Your task to perform on an android device: open app "Google News" (install if not already installed) Image 0: 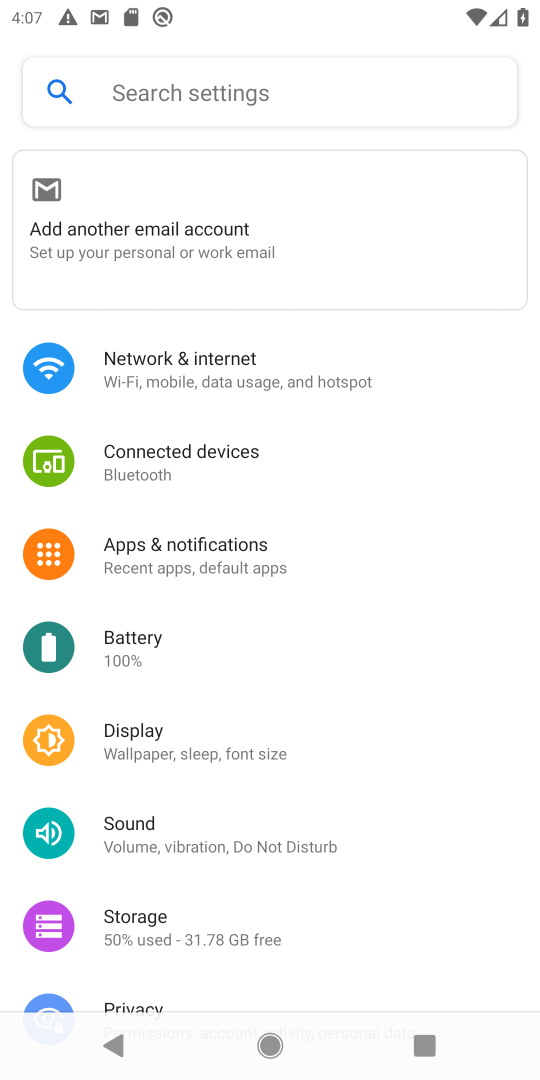
Step 0: press home button
Your task to perform on an android device: open app "Google News" (install if not already installed) Image 1: 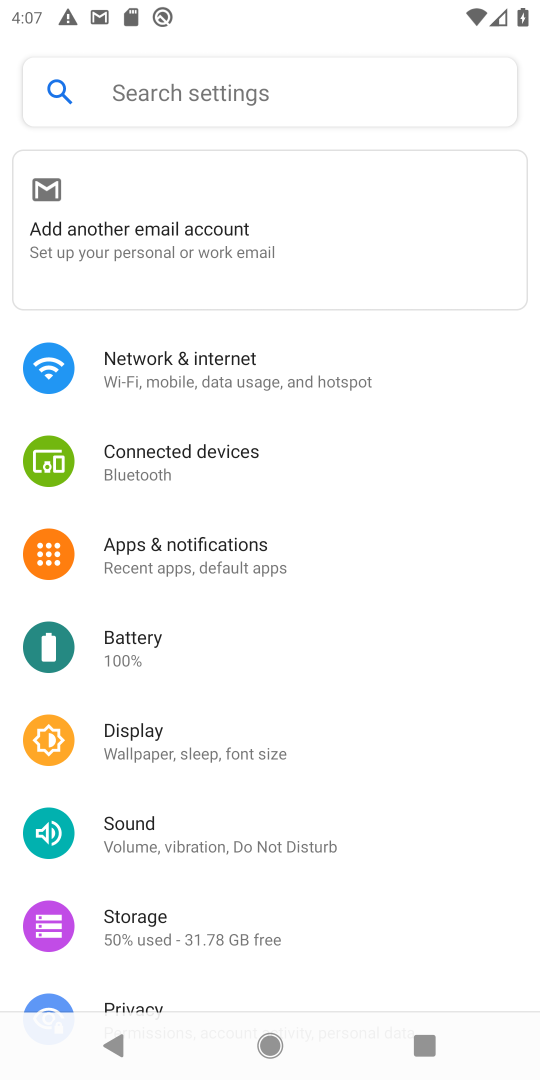
Step 1: press home button
Your task to perform on an android device: open app "Google News" (install if not already installed) Image 2: 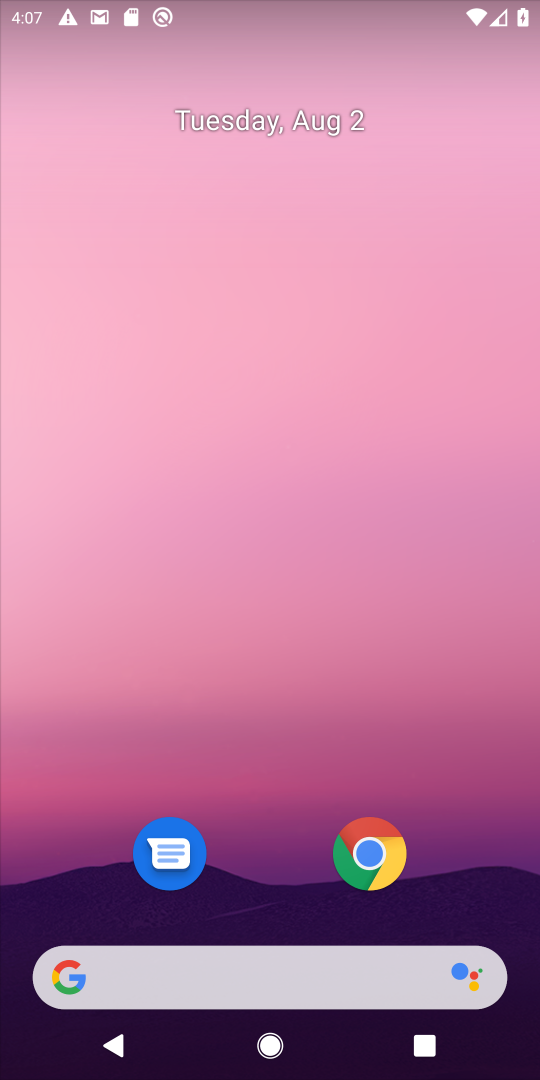
Step 2: click (302, 1066)
Your task to perform on an android device: open app "Google News" (install if not already installed) Image 3: 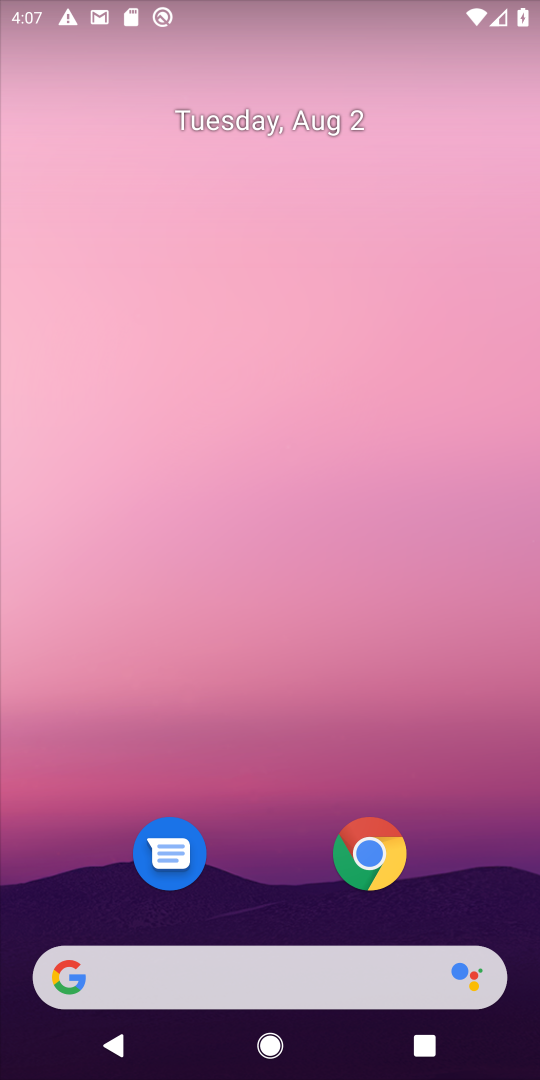
Step 3: drag from (306, 371) to (306, 281)
Your task to perform on an android device: open app "Google News" (install if not already installed) Image 4: 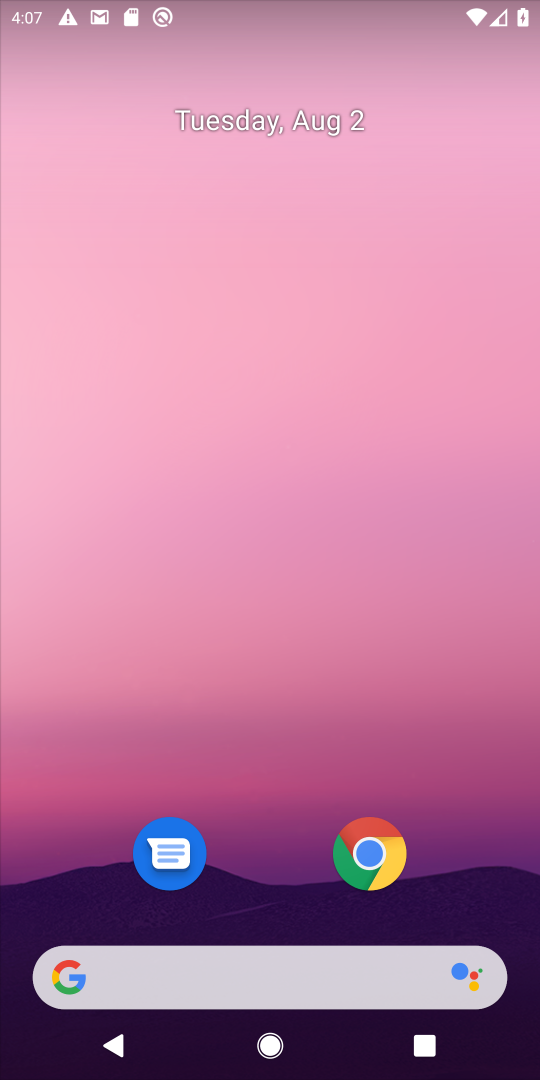
Step 4: drag from (343, 1072) to (313, 13)
Your task to perform on an android device: open app "Google News" (install if not already installed) Image 5: 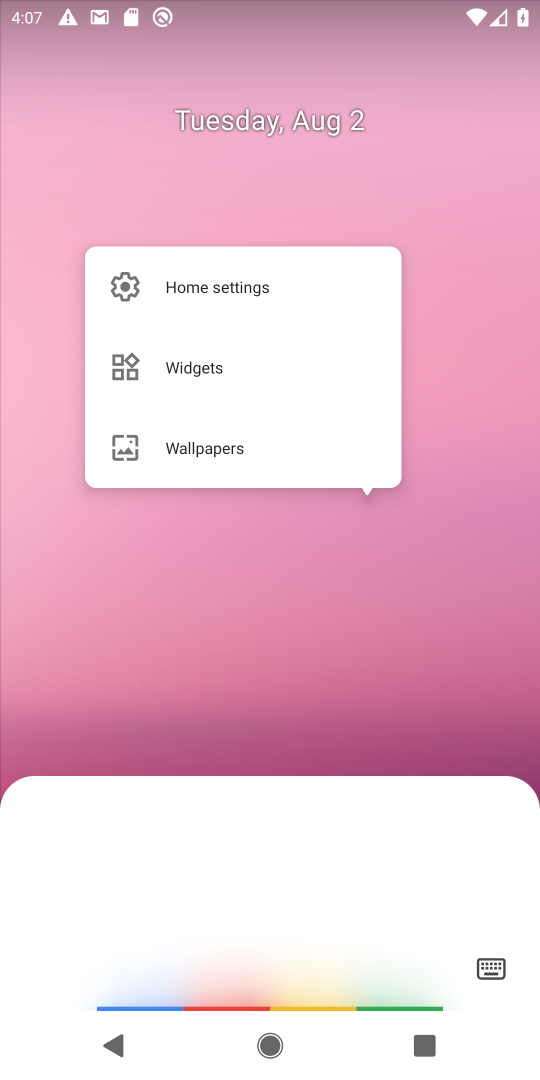
Step 5: click (276, 743)
Your task to perform on an android device: open app "Google News" (install if not already installed) Image 6: 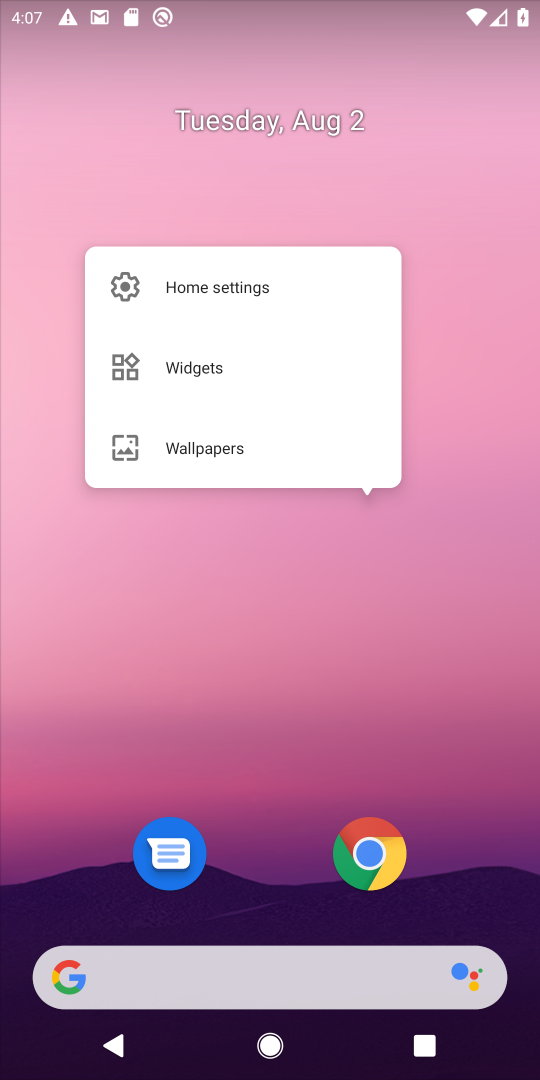
Step 6: click (430, 630)
Your task to perform on an android device: open app "Google News" (install if not already installed) Image 7: 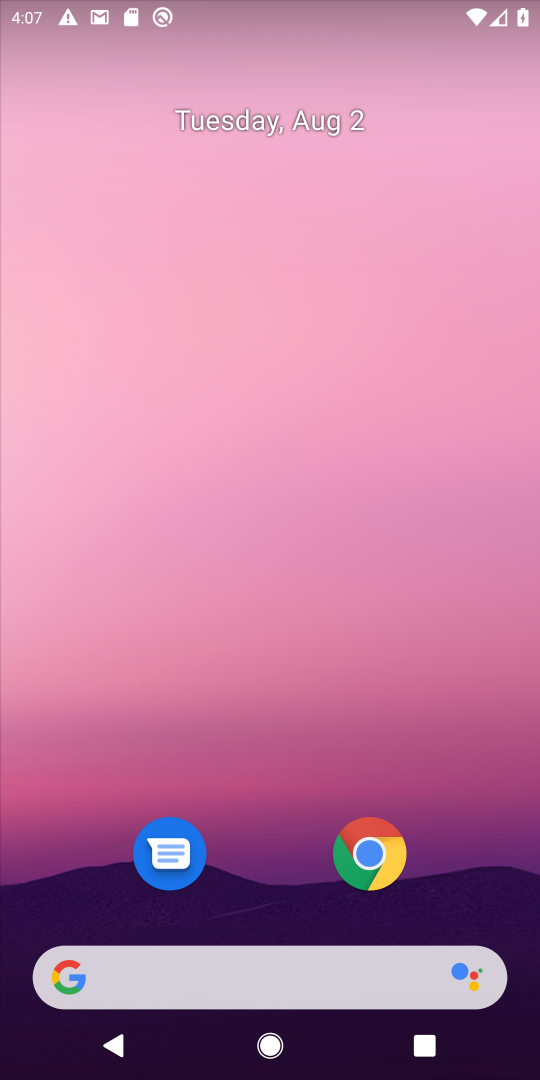
Step 7: drag from (332, 1071) to (298, 165)
Your task to perform on an android device: open app "Google News" (install if not already installed) Image 8: 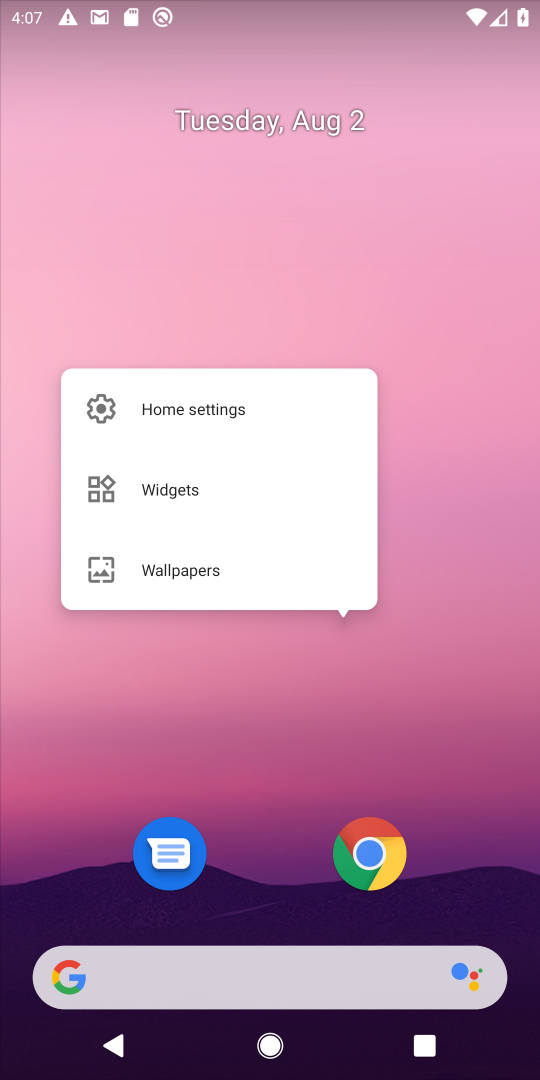
Step 8: click (278, 822)
Your task to perform on an android device: open app "Google News" (install if not already installed) Image 9: 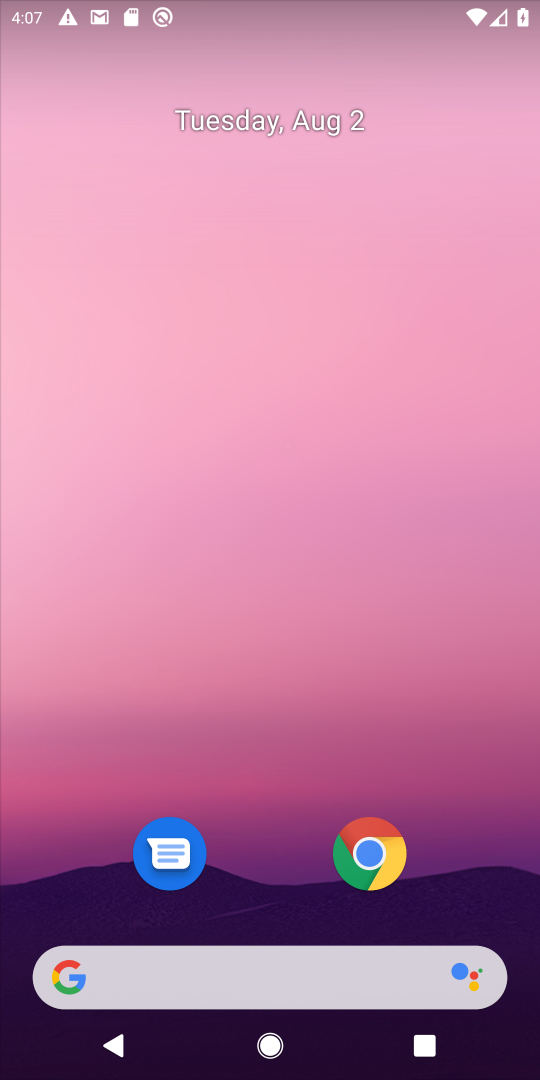
Step 9: drag from (320, 1059) to (333, 313)
Your task to perform on an android device: open app "Google News" (install if not already installed) Image 10: 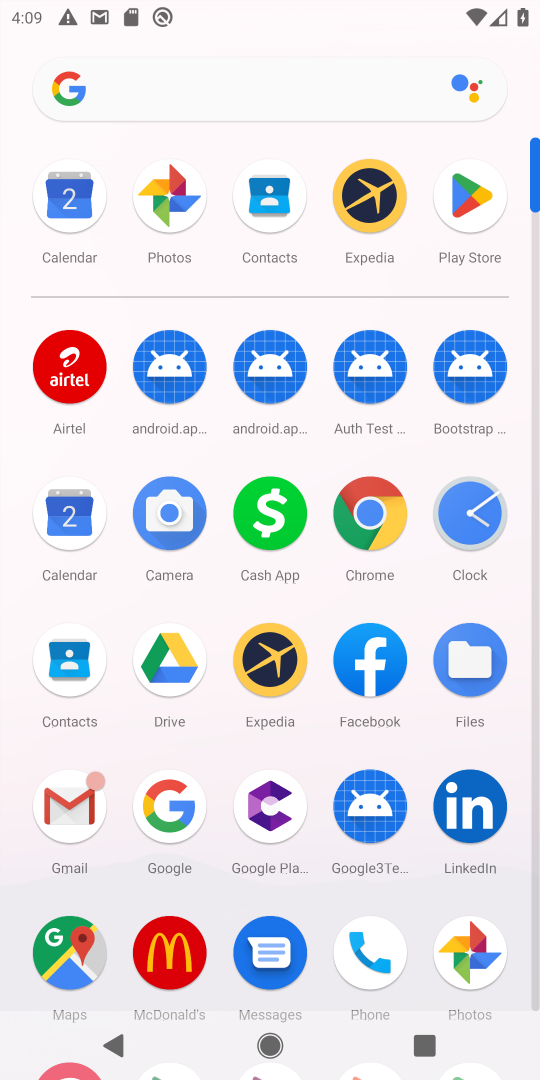
Step 10: click (473, 205)
Your task to perform on an android device: open app "Google News" (install if not already installed) Image 11: 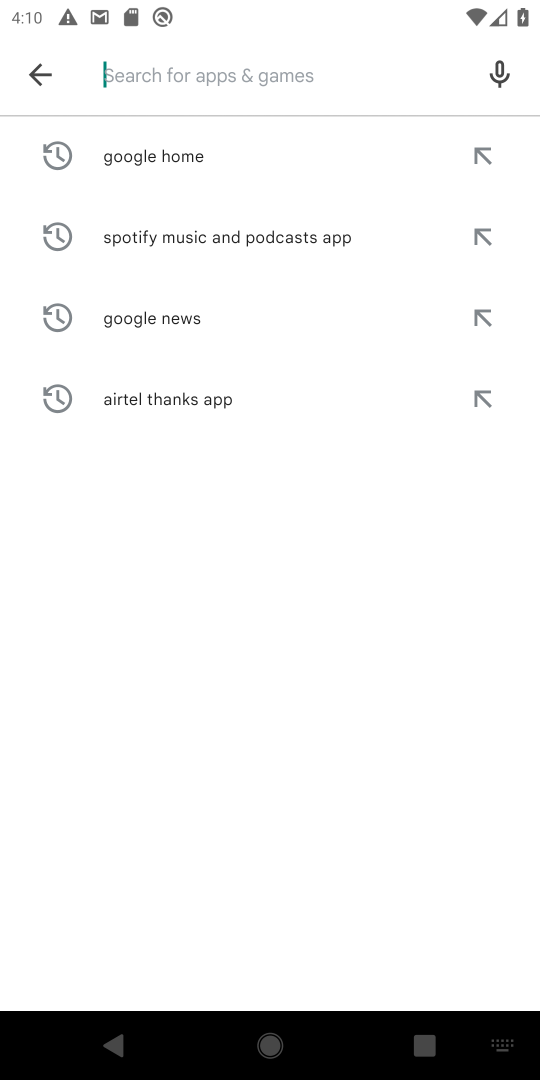
Step 11: click (289, 759)
Your task to perform on an android device: open app "Google News" (install if not already installed) Image 12: 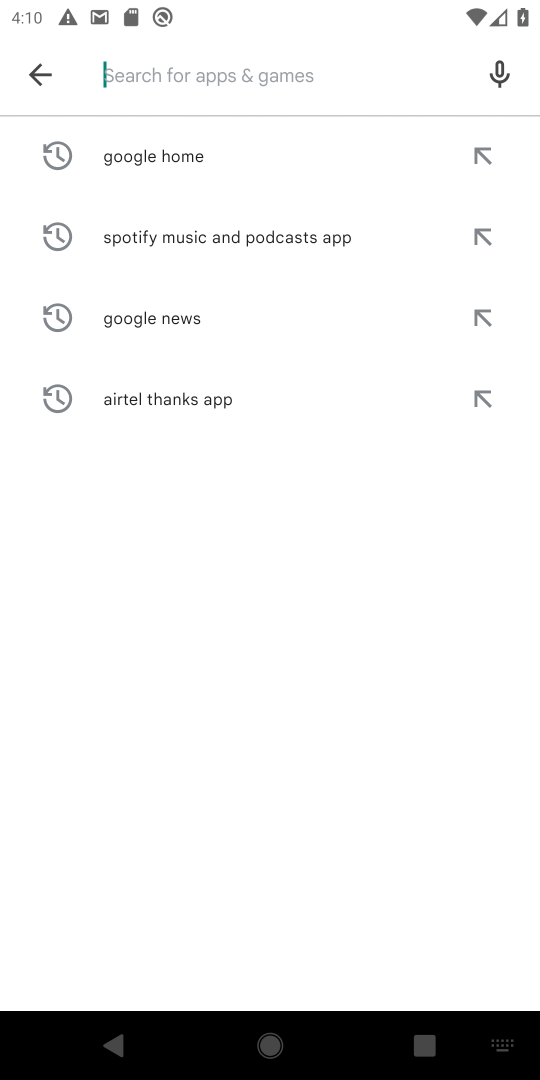
Step 12: type "Google News"
Your task to perform on an android device: open app "Google News" (install if not already installed) Image 13: 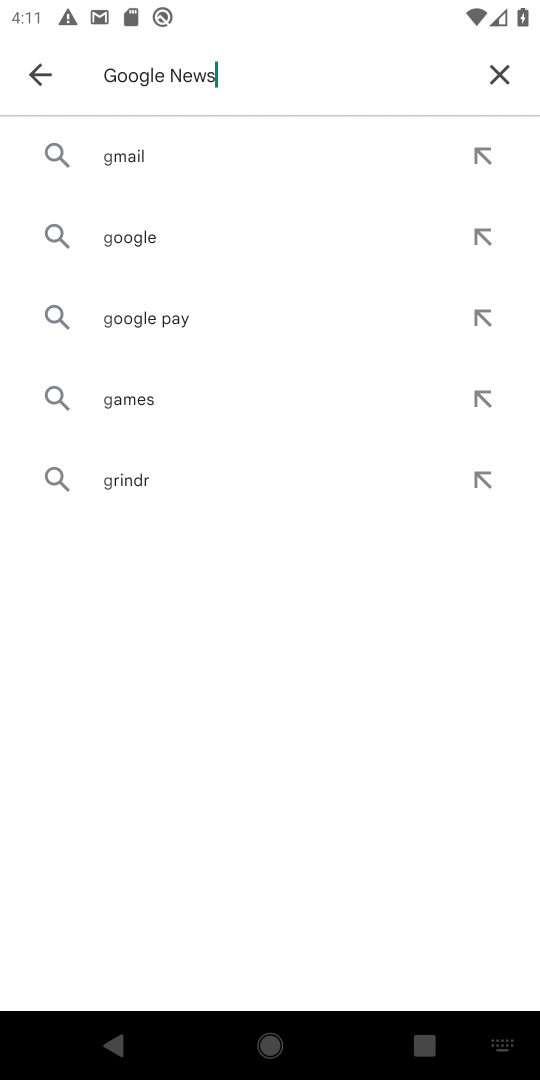
Step 13: type ""
Your task to perform on an android device: open app "Google News" (install if not already installed) Image 14: 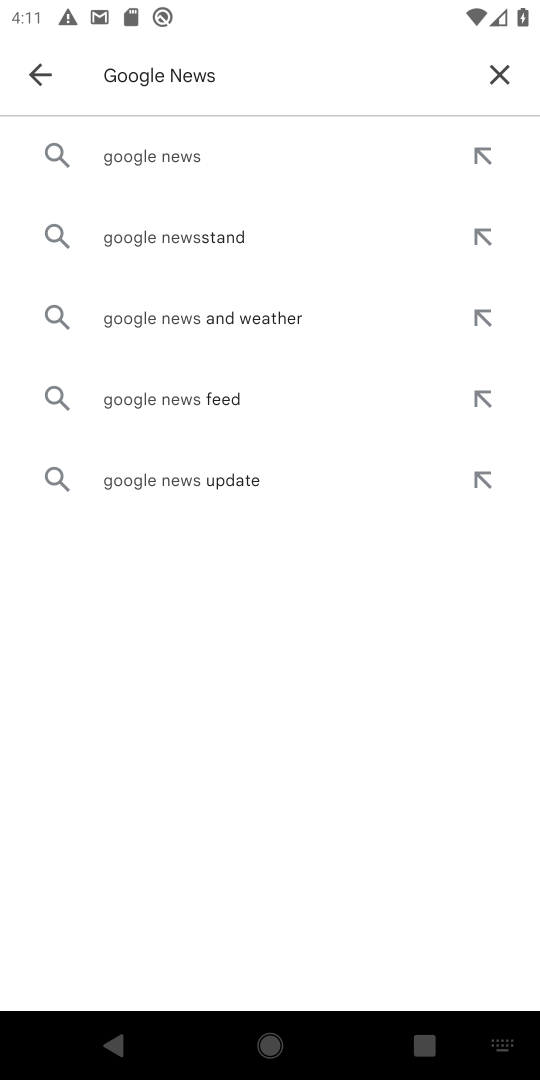
Step 14: click (153, 156)
Your task to perform on an android device: open app "Google News" (install if not already installed) Image 15: 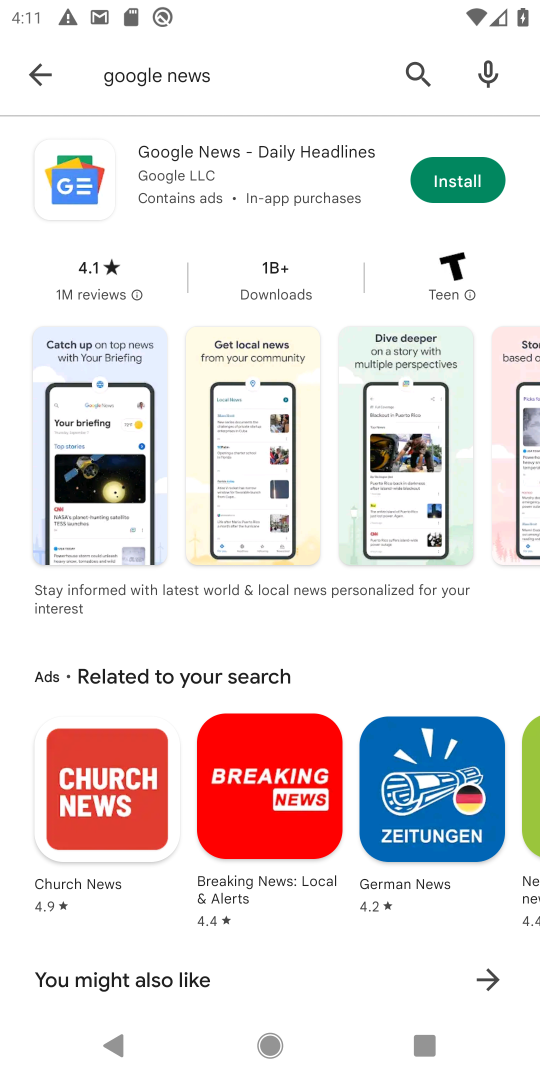
Step 15: click (462, 188)
Your task to perform on an android device: open app "Google News" (install if not already installed) Image 16: 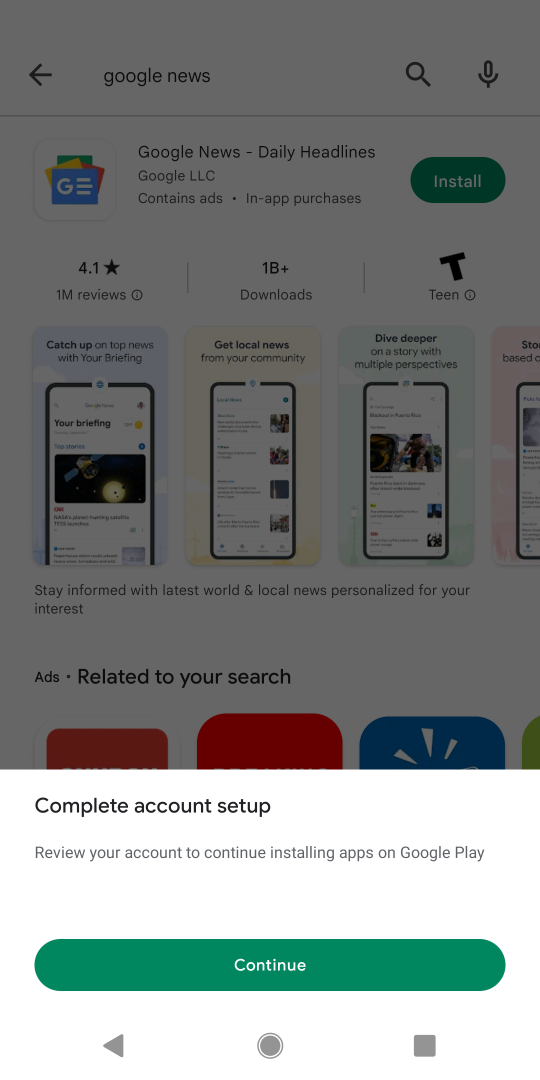
Step 16: click (263, 964)
Your task to perform on an android device: open app "Google News" (install if not already installed) Image 17: 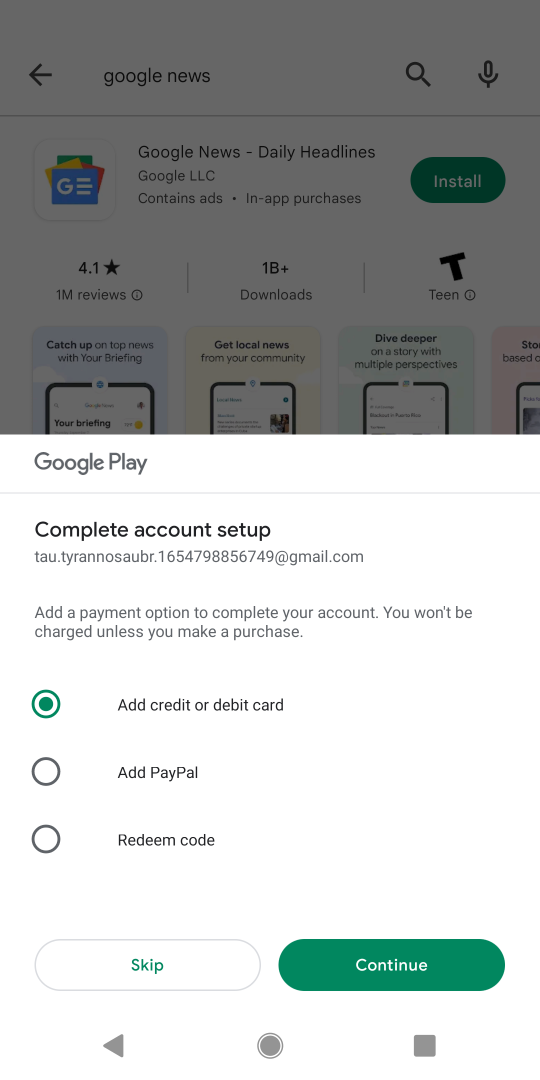
Step 17: click (179, 958)
Your task to perform on an android device: open app "Google News" (install if not already installed) Image 18: 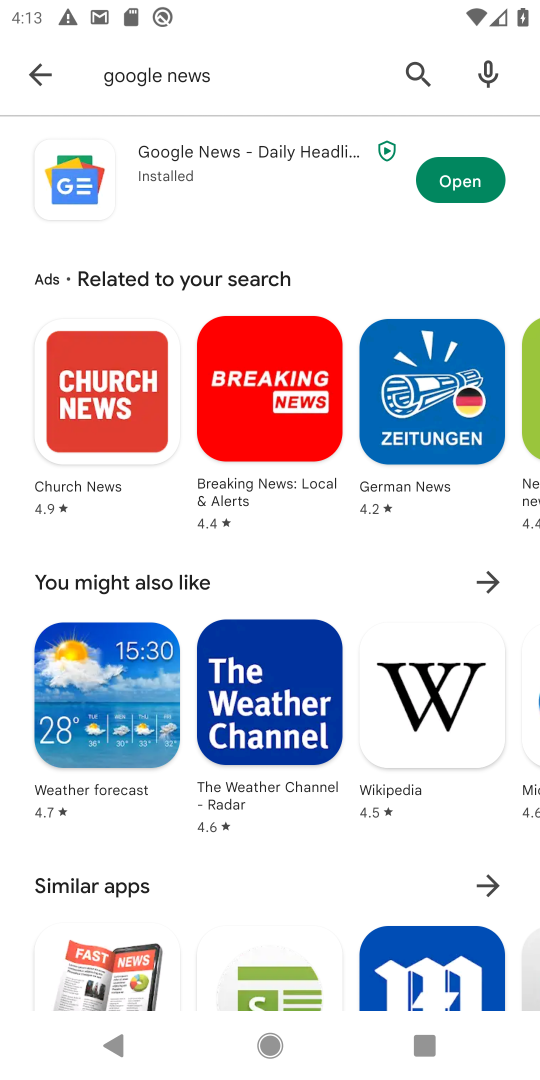
Step 18: click (461, 181)
Your task to perform on an android device: open app "Google News" (install if not already installed) Image 19: 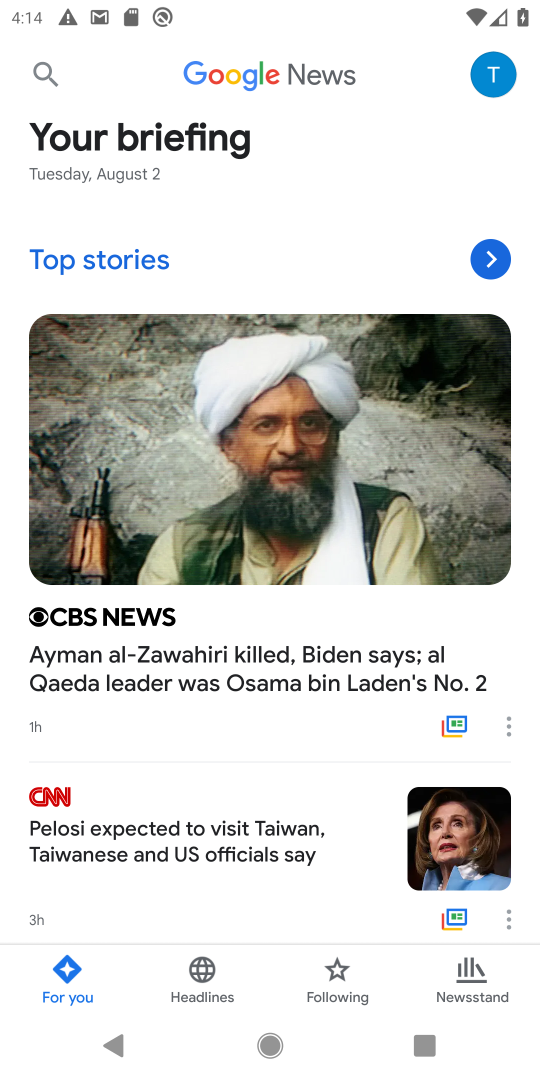
Step 19: task complete